Your task to perform on an android device: Open display settings Image 0: 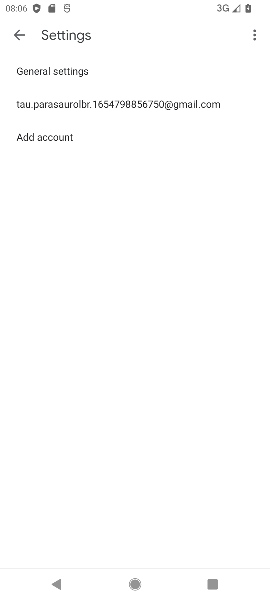
Step 0: press home button
Your task to perform on an android device: Open display settings Image 1: 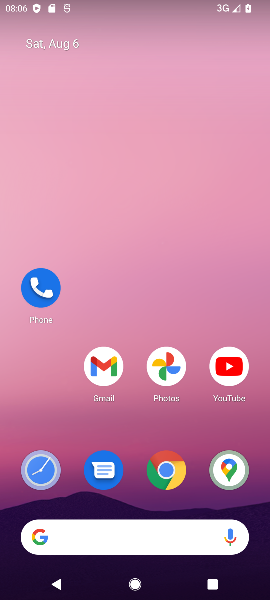
Step 1: drag from (133, 547) to (73, 11)
Your task to perform on an android device: Open display settings Image 2: 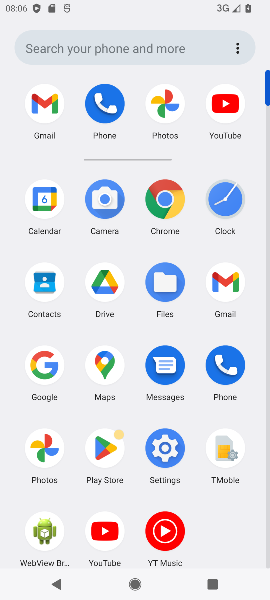
Step 2: click (167, 464)
Your task to perform on an android device: Open display settings Image 3: 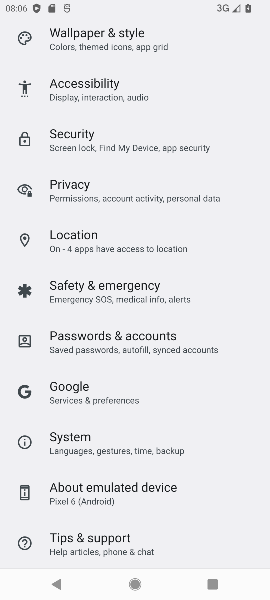
Step 3: drag from (100, 168) to (139, 596)
Your task to perform on an android device: Open display settings Image 4: 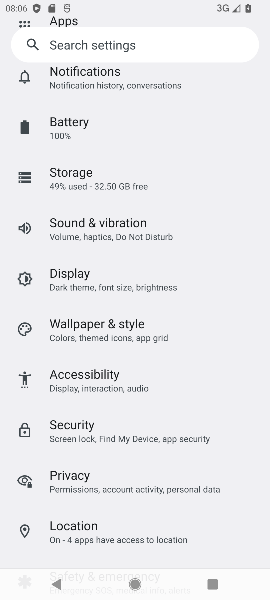
Step 4: click (66, 264)
Your task to perform on an android device: Open display settings Image 5: 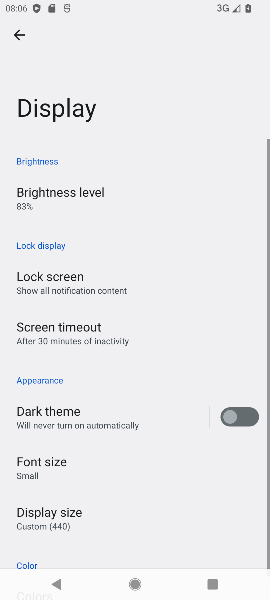
Step 5: task complete